Your task to perform on an android device: Go to Android settings Image 0: 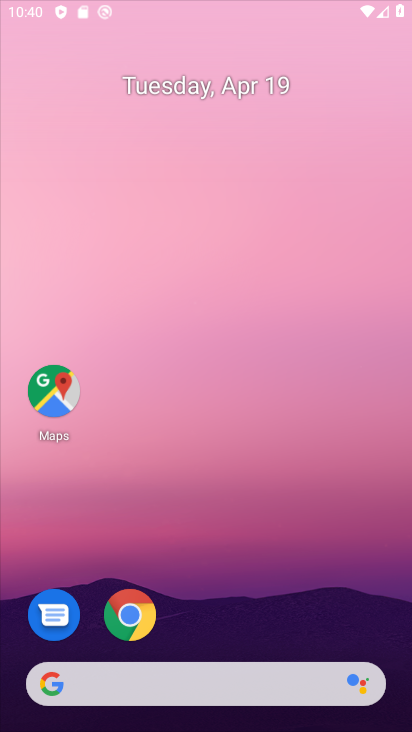
Step 0: click (141, 625)
Your task to perform on an android device: Go to Android settings Image 1: 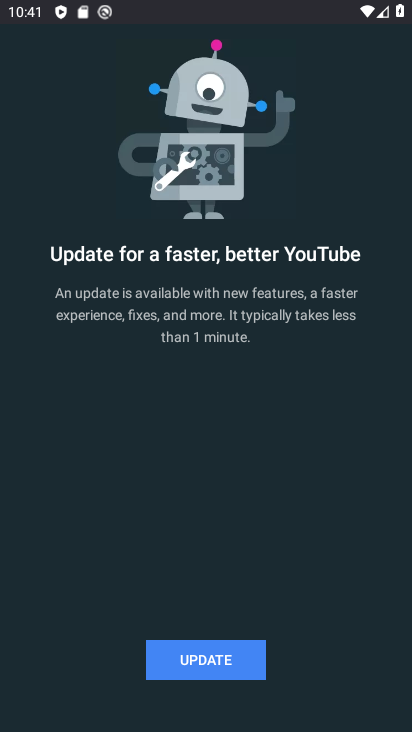
Step 1: press home button
Your task to perform on an android device: Go to Android settings Image 2: 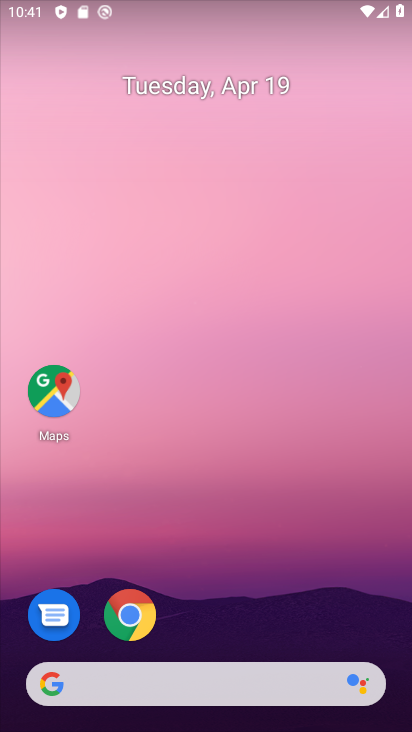
Step 2: drag from (206, 599) to (197, 67)
Your task to perform on an android device: Go to Android settings Image 3: 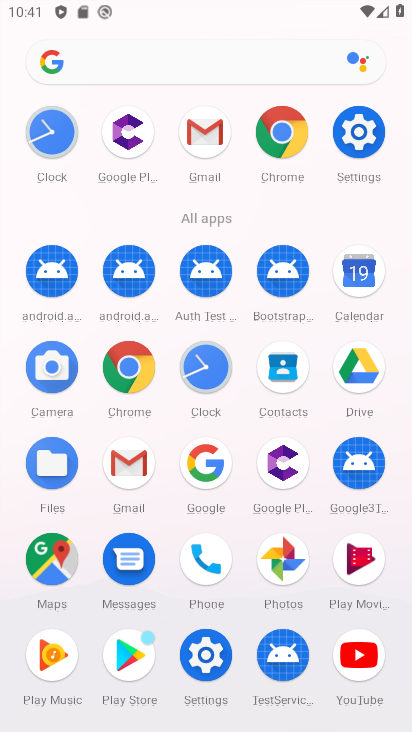
Step 3: click (368, 135)
Your task to perform on an android device: Go to Android settings Image 4: 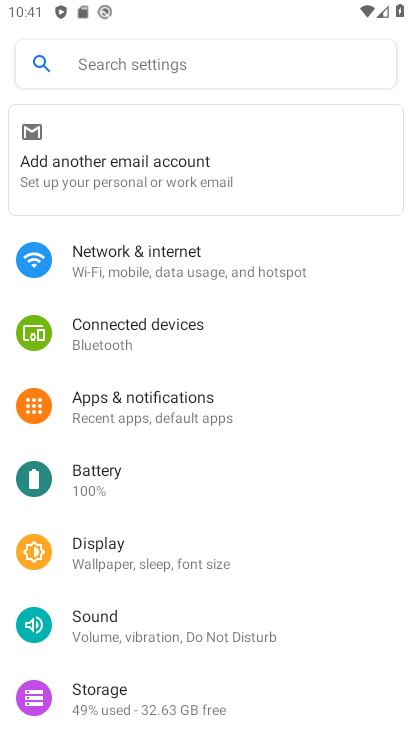
Step 4: drag from (221, 631) to (227, 175)
Your task to perform on an android device: Go to Android settings Image 5: 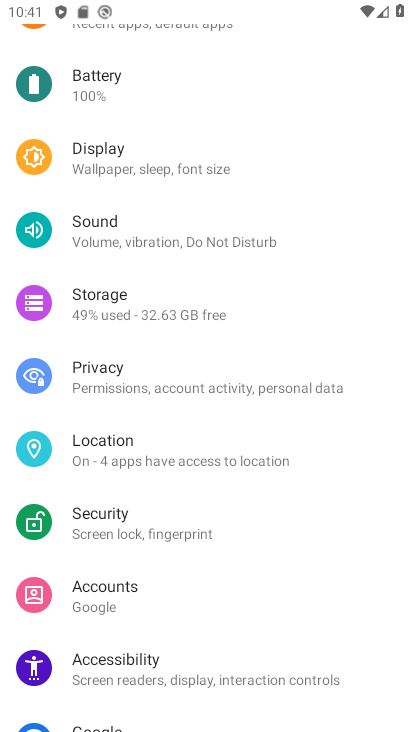
Step 5: drag from (289, 680) to (277, 209)
Your task to perform on an android device: Go to Android settings Image 6: 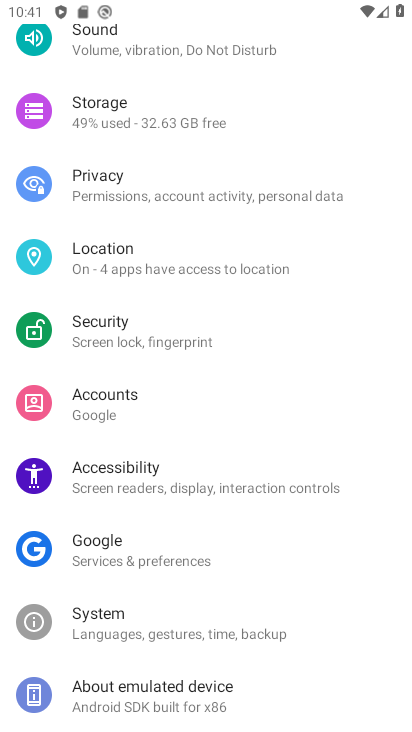
Step 6: click (220, 682)
Your task to perform on an android device: Go to Android settings Image 7: 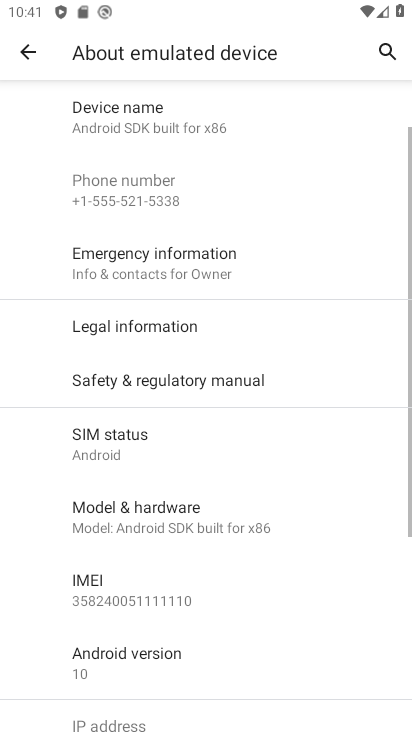
Step 7: task complete